Your task to perform on an android device: see sites visited before in the chrome app Image 0: 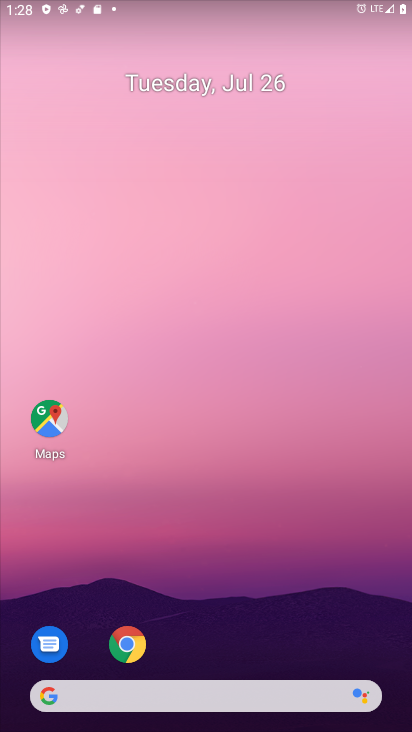
Step 0: click (126, 654)
Your task to perform on an android device: see sites visited before in the chrome app Image 1: 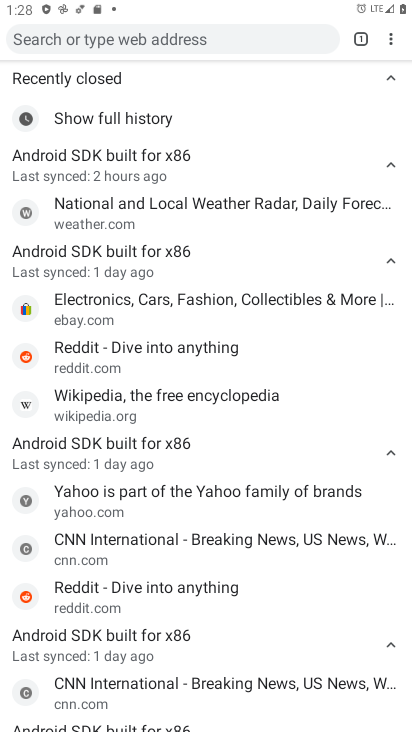
Step 1: task complete